Your task to perform on an android device: check battery use Image 0: 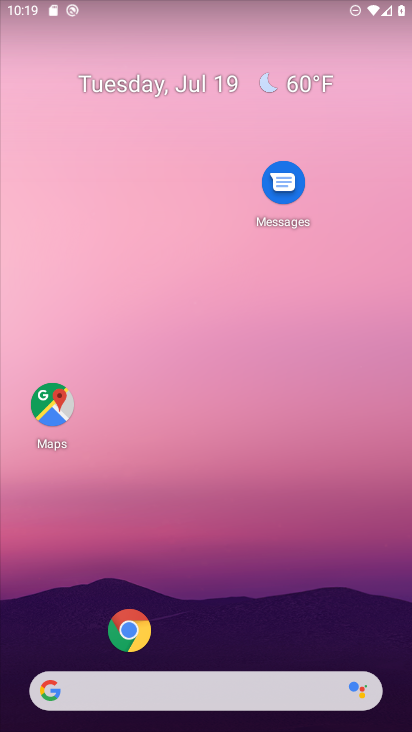
Step 0: click (35, 403)
Your task to perform on an android device: check battery use Image 1: 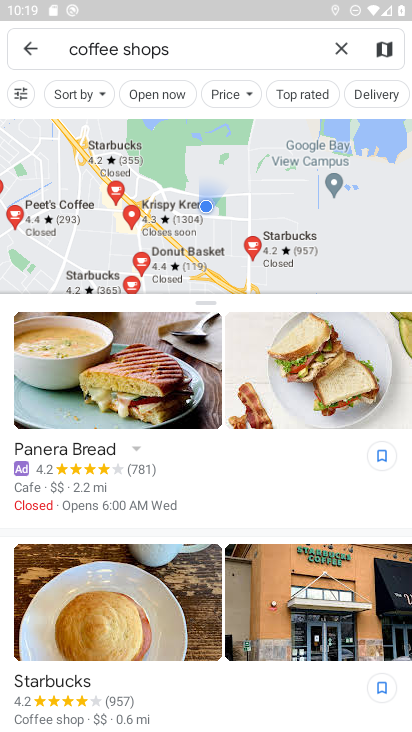
Step 1: press home button
Your task to perform on an android device: check battery use Image 2: 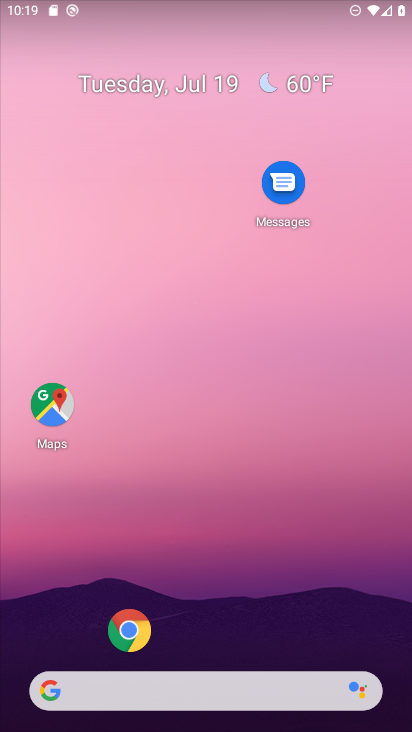
Step 2: drag from (22, 666) to (237, 127)
Your task to perform on an android device: check battery use Image 3: 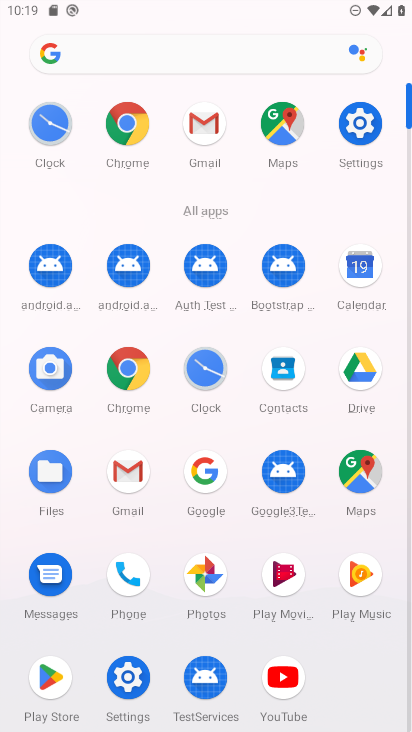
Step 3: click (125, 685)
Your task to perform on an android device: check battery use Image 4: 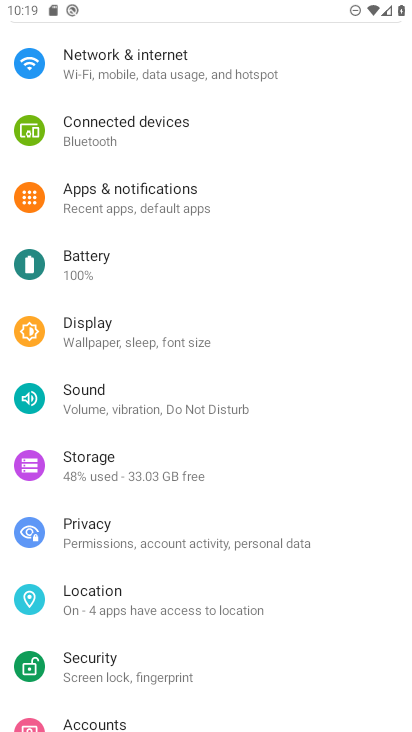
Step 4: click (138, 260)
Your task to perform on an android device: check battery use Image 5: 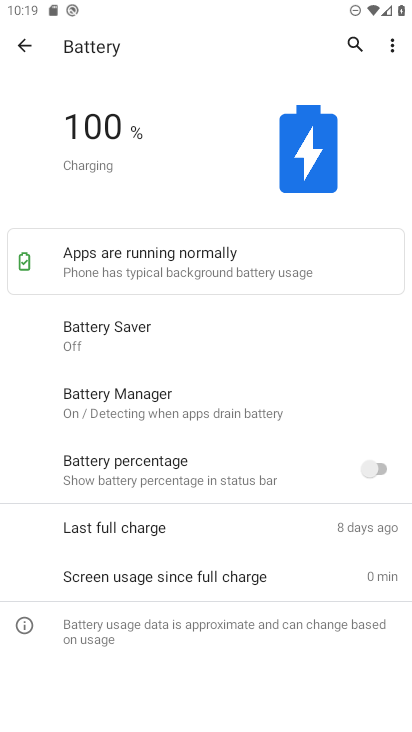
Step 5: task complete